Your task to perform on an android device: check google app version Image 0: 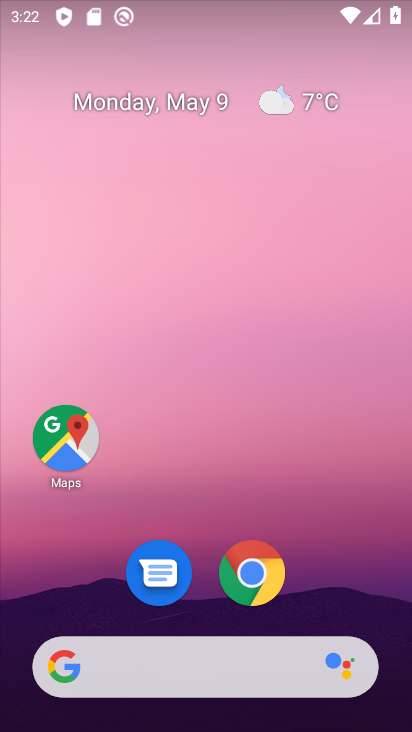
Step 0: drag from (356, 617) to (359, 22)
Your task to perform on an android device: check google app version Image 1: 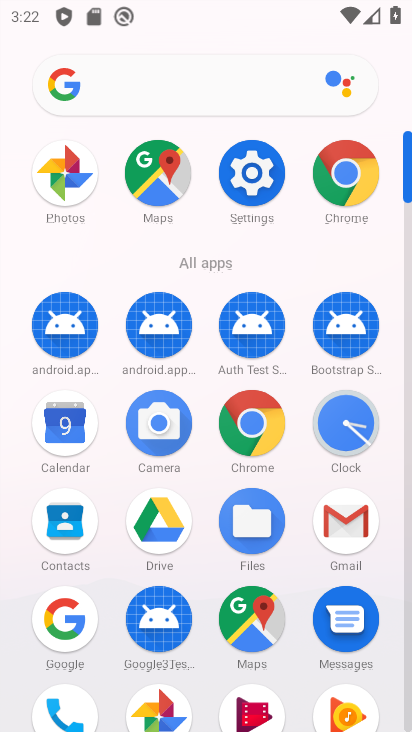
Step 1: click (66, 628)
Your task to perform on an android device: check google app version Image 2: 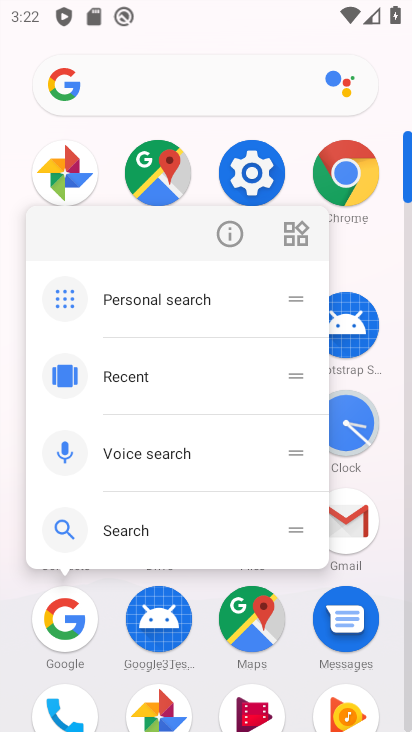
Step 2: click (231, 235)
Your task to perform on an android device: check google app version Image 3: 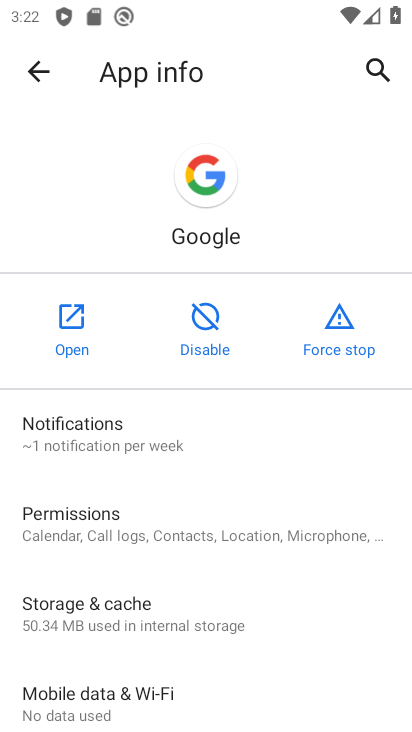
Step 3: drag from (290, 669) to (286, 142)
Your task to perform on an android device: check google app version Image 4: 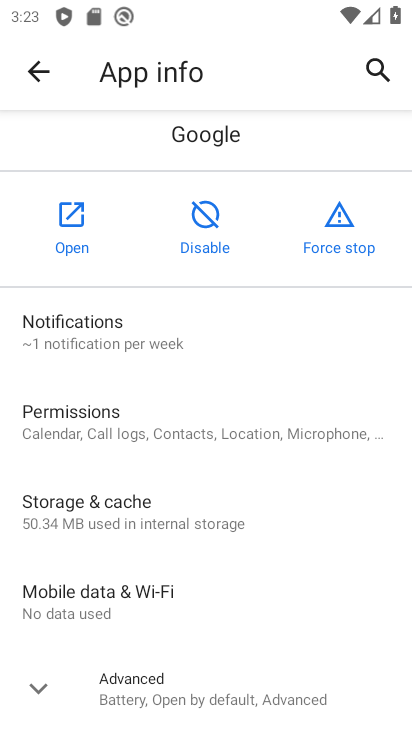
Step 4: click (35, 699)
Your task to perform on an android device: check google app version Image 5: 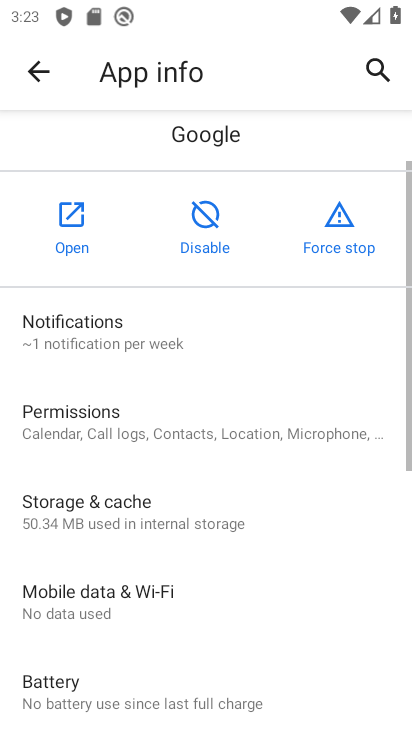
Step 5: task complete